Your task to perform on an android device: Go to ESPN.com Image 0: 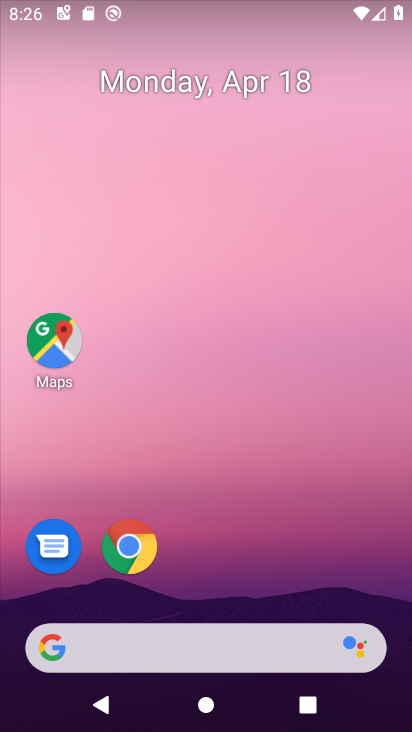
Step 0: drag from (303, 532) to (206, 132)
Your task to perform on an android device: Go to ESPN.com Image 1: 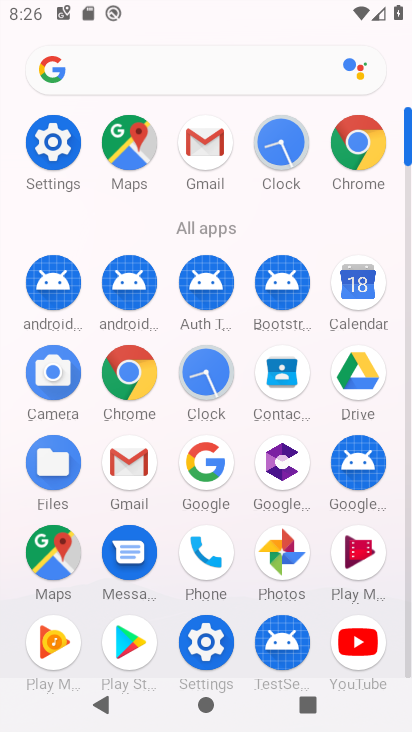
Step 1: click (376, 180)
Your task to perform on an android device: Go to ESPN.com Image 2: 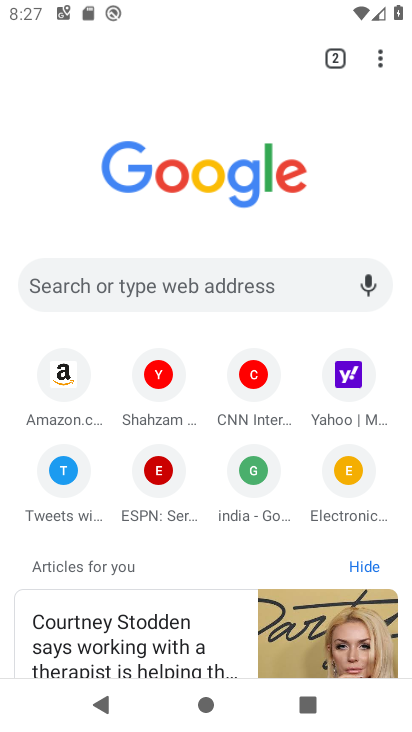
Step 2: click (163, 481)
Your task to perform on an android device: Go to ESPN.com Image 3: 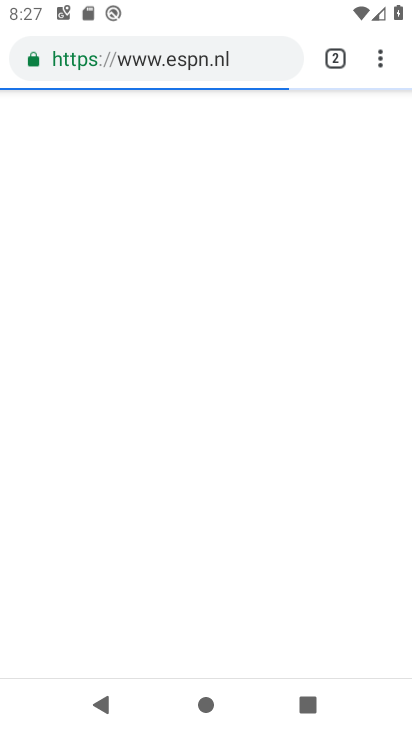
Step 3: task complete